Your task to perform on an android device: Is it going to rain today? Image 0: 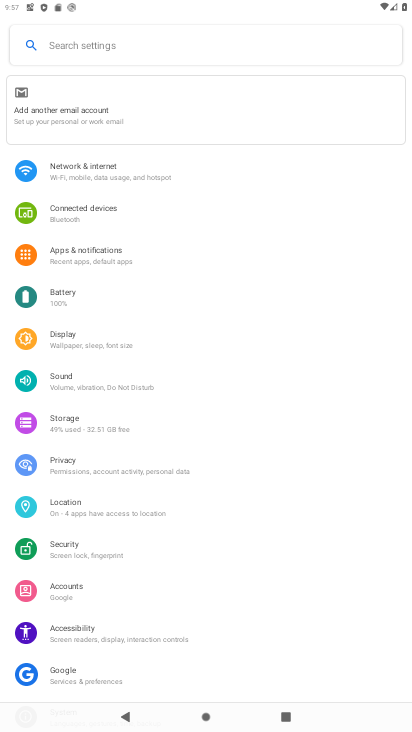
Step 0: press home button
Your task to perform on an android device: Is it going to rain today? Image 1: 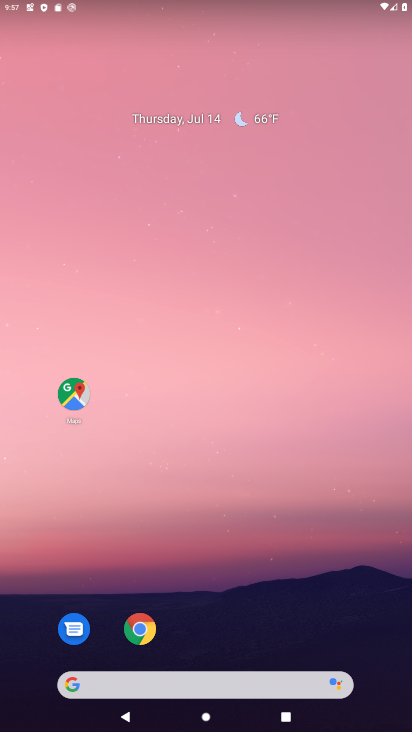
Step 1: click (72, 689)
Your task to perform on an android device: Is it going to rain today? Image 2: 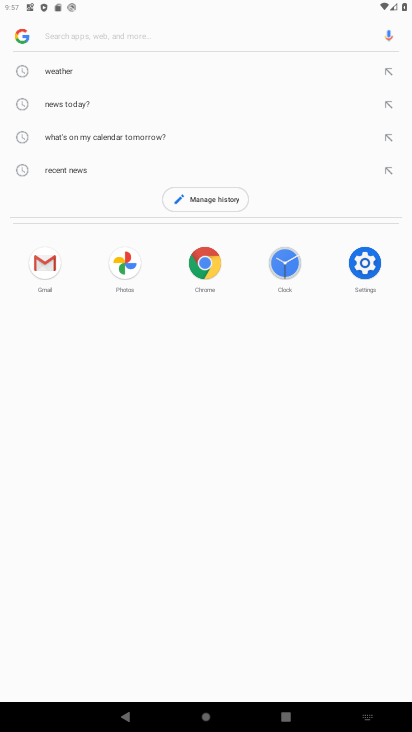
Step 2: type "Is it going to rain today?"
Your task to perform on an android device: Is it going to rain today? Image 3: 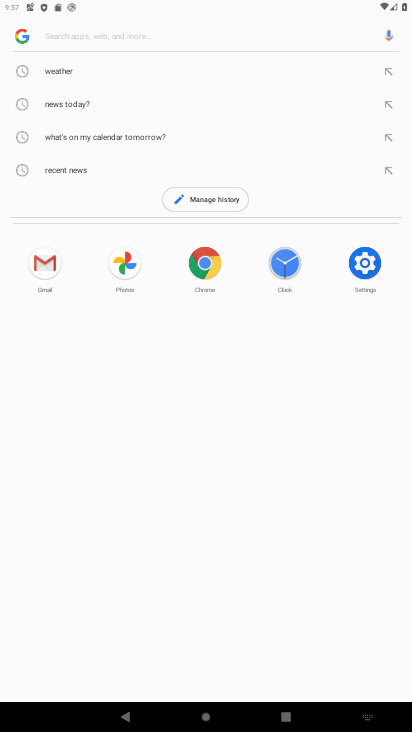
Step 3: click (74, 37)
Your task to perform on an android device: Is it going to rain today? Image 4: 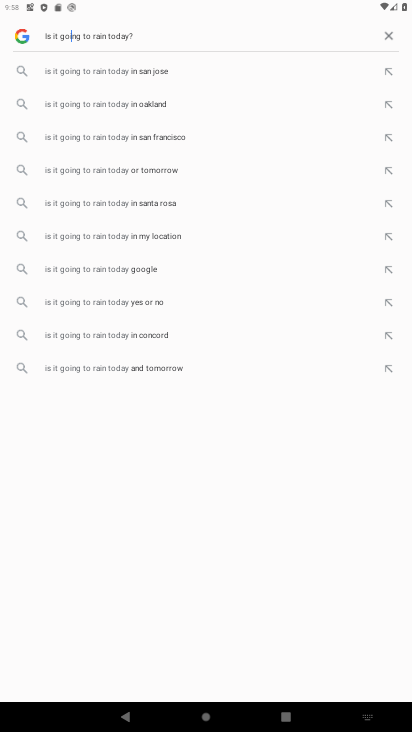
Step 4: press enter
Your task to perform on an android device: Is it going to rain today? Image 5: 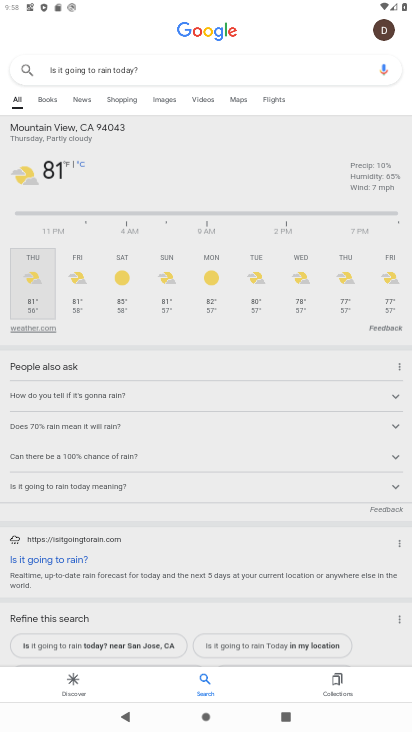
Step 5: task complete